Your task to perform on an android device: open wifi settings Image 0: 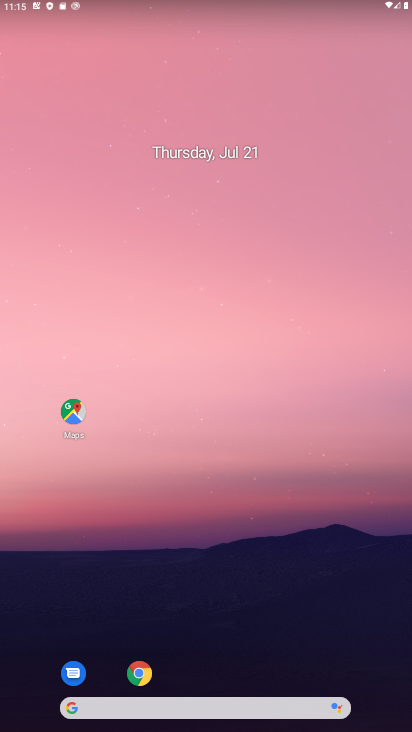
Step 0: drag from (211, 651) to (215, 202)
Your task to perform on an android device: open wifi settings Image 1: 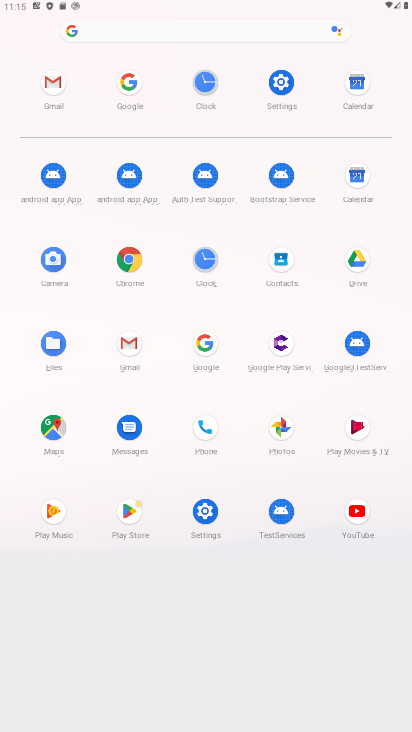
Step 1: click (285, 86)
Your task to perform on an android device: open wifi settings Image 2: 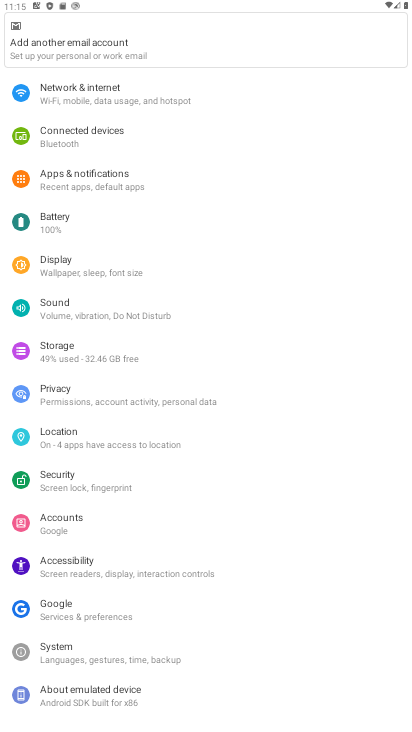
Step 2: click (80, 103)
Your task to perform on an android device: open wifi settings Image 3: 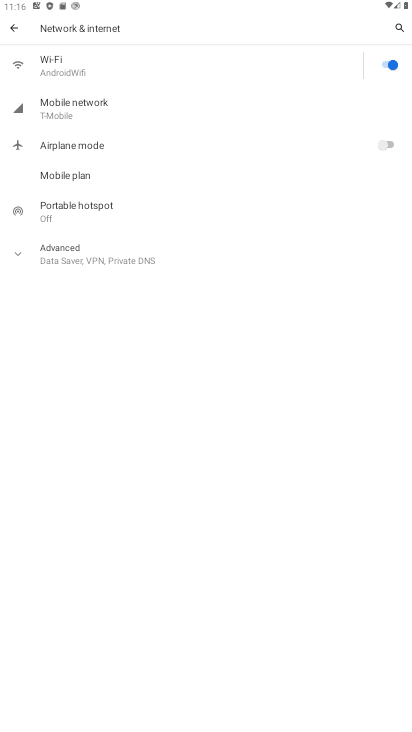
Step 3: click (85, 69)
Your task to perform on an android device: open wifi settings Image 4: 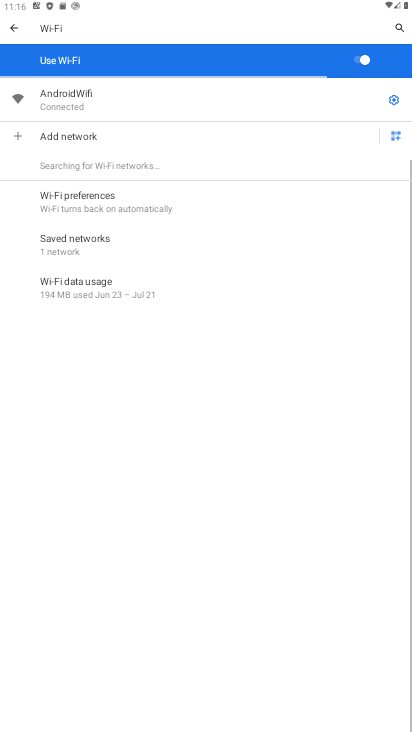
Step 4: task complete